Your task to perform on an android device: open chrome privacy settings Image 0: 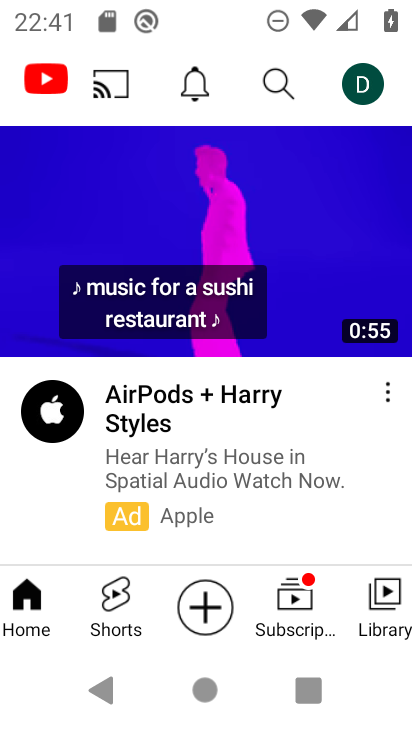
Step 0: press home button
Your task to perform on an android device: open chrome privacy settings Image 1: 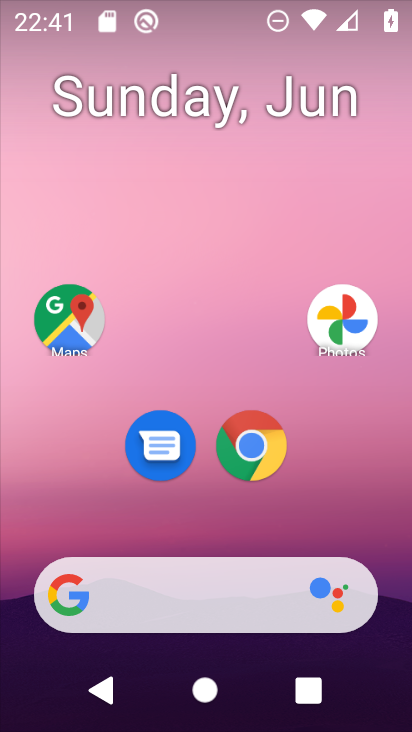
Step 1: click (256, 468)
Your task to perform on an android device: open chrome privacy settings Image 2: 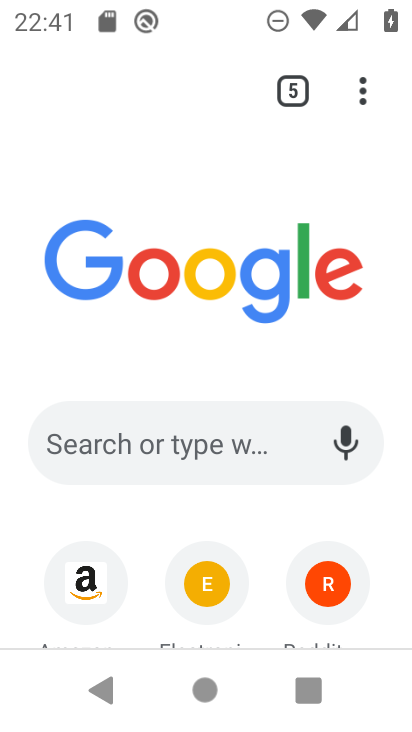
Step 2: click (367, 86)
Your task to perform on an android device: open chrome privacy settings Image 3: 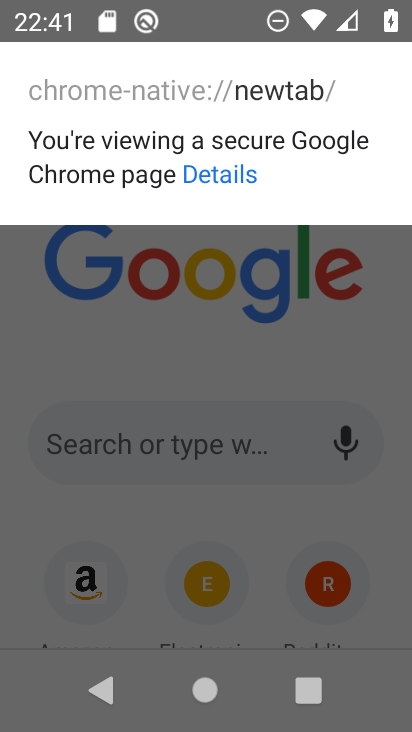
Step 3: drag from (367, 86) to (108, 340)
Your task to perform on an android device: open chrome privacy settings Image 4: 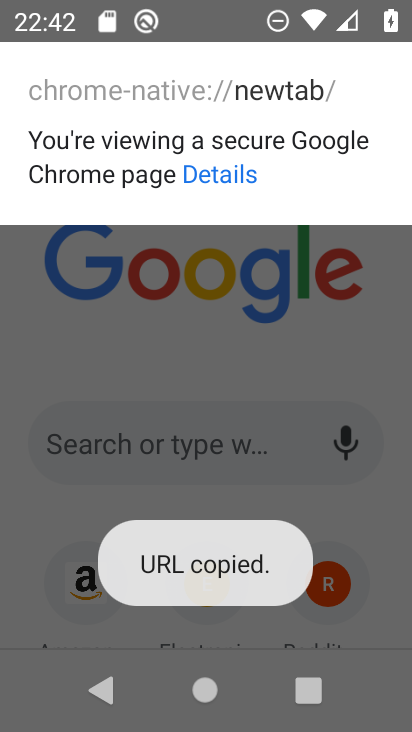
Step 4: click (99, 338)
Your task to perform on an android device: open chrome privacy settings Image 5: 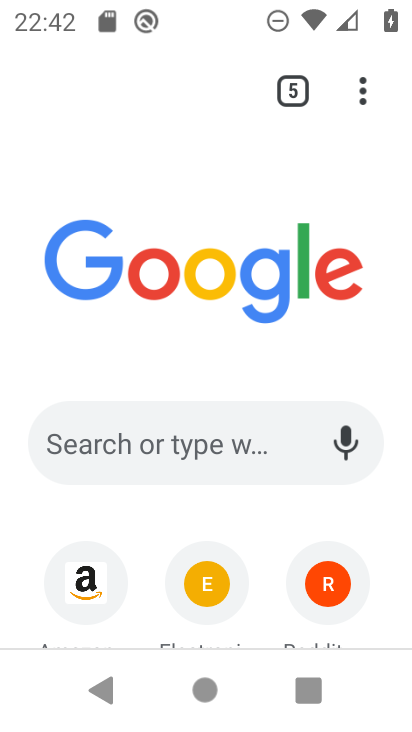
Step 5: drag from (357, 102) to (138, 503)
Your task to perform on an android device: open chrome privacy settings Image 6: 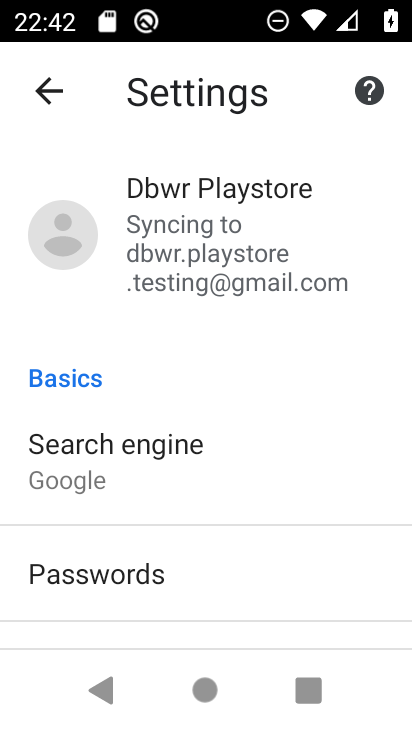
Step 6: drag from (345, 499) to (326, 172)
Your task to perform on an android device: open chrome privacy settings Image 7: 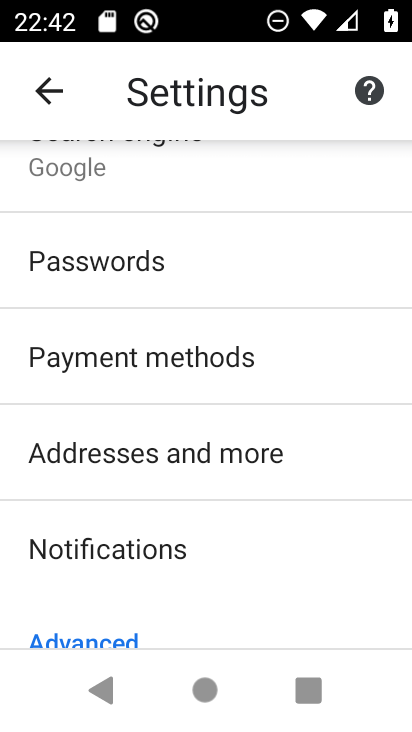
Step 7: drag from (230, 623) to (229, 347)
Your task to perform on an android device: open chrome privacy settings Image 8: 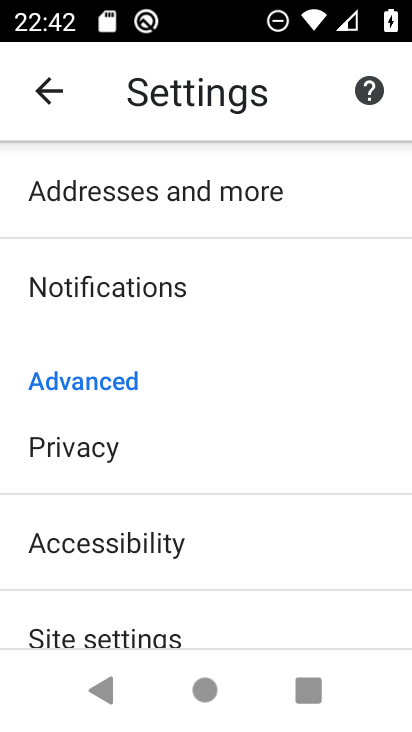
Step 8: click (126, 442)
Your task to perform on an android device: open chrome privacy settings Image 9: 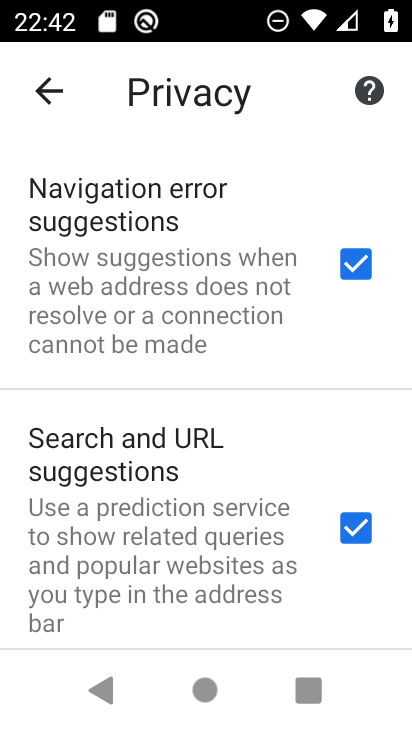
Step 9: task complete